Your task to perform on an android device: What's the weather? Image 0: 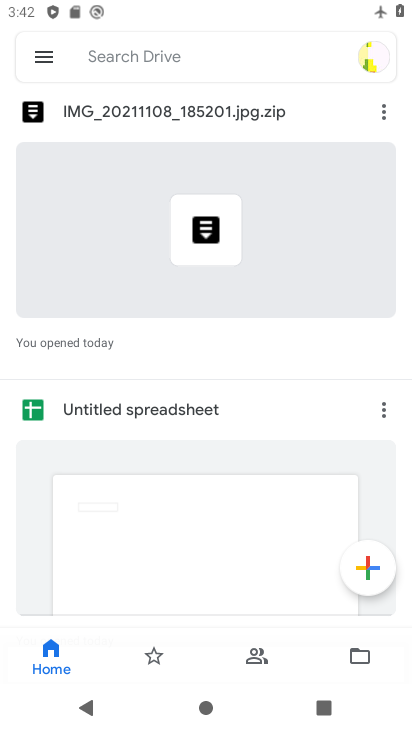
Step 0: press home button
Your task to perform on an android device: What's the weather? Image 1: 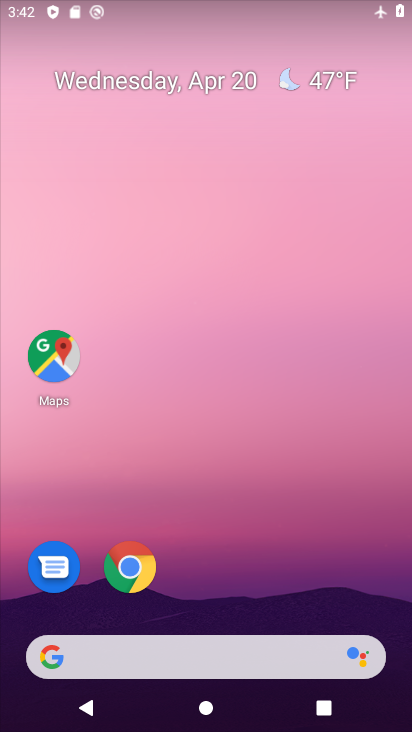
Step 1: click (196, 655)
Your task to perform on an android device: What's the weather? Image 2: 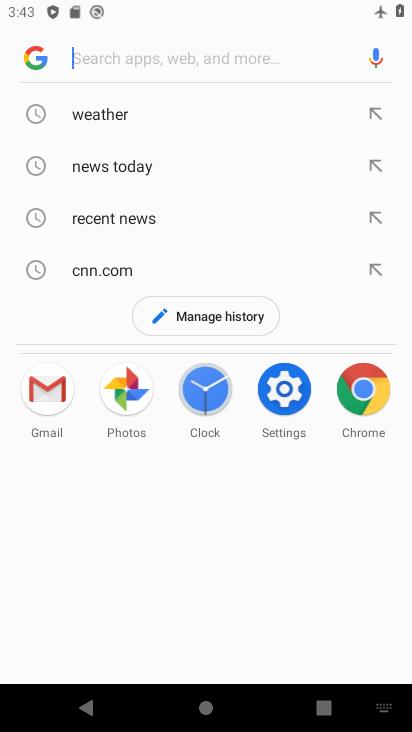
Step 2: click (89, 97)
Your task to perform on an android device: What's the weather? Image 3: 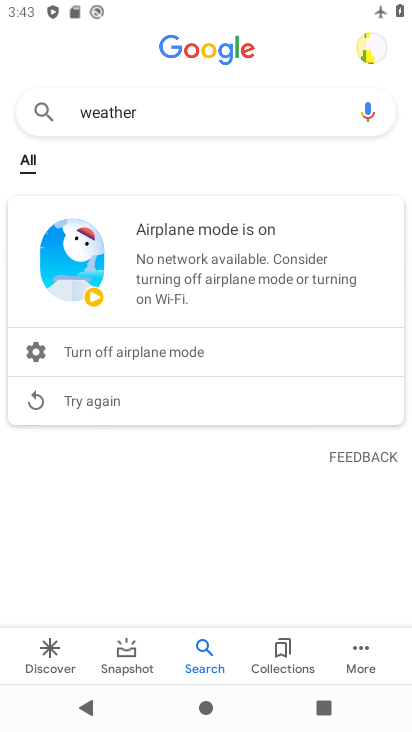
Step 3: drag from (226, 18) to (314, 565)
Your task to perform on an android device: What's the weather? Image 4: 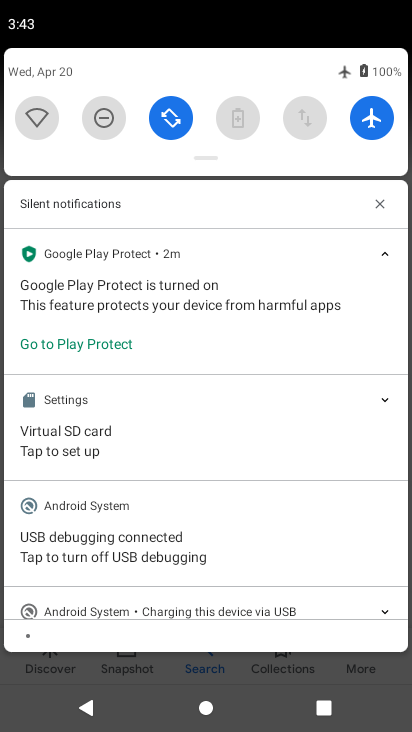
Step 4: click (360, 125)
Your task to perform on an android device: What's the weather? Image 5: 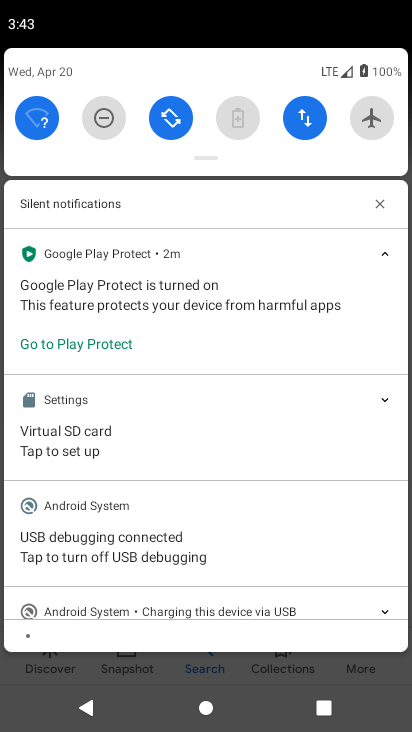
Step 5: task complete